Your task to perform on an android device: open app "Truecaller" (install if not already installed) Image 0: 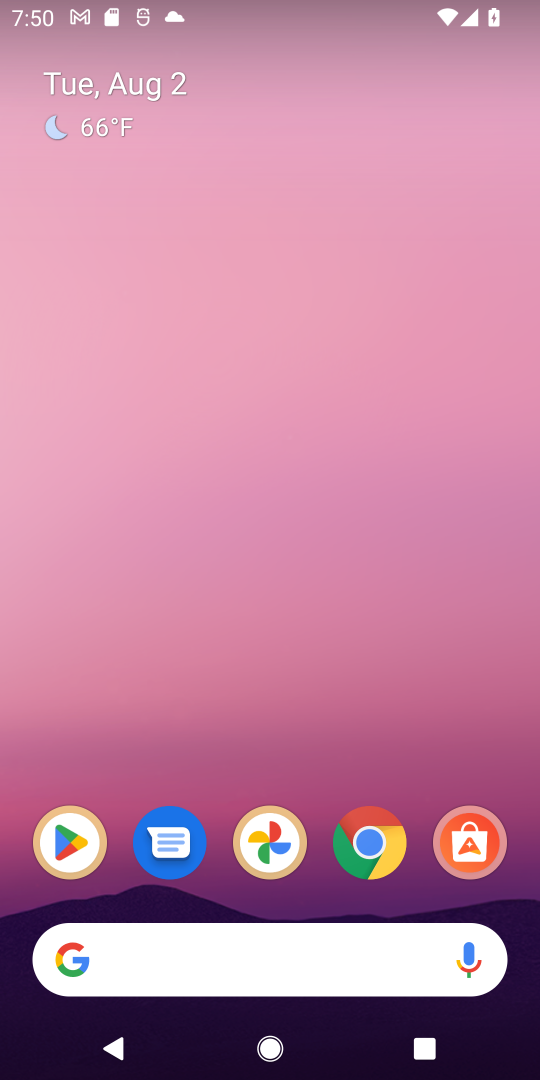
Step 0: click (89, 827)
Your task to perform on an android device: open app "Truecaller" (install if not already installed) Image 1: 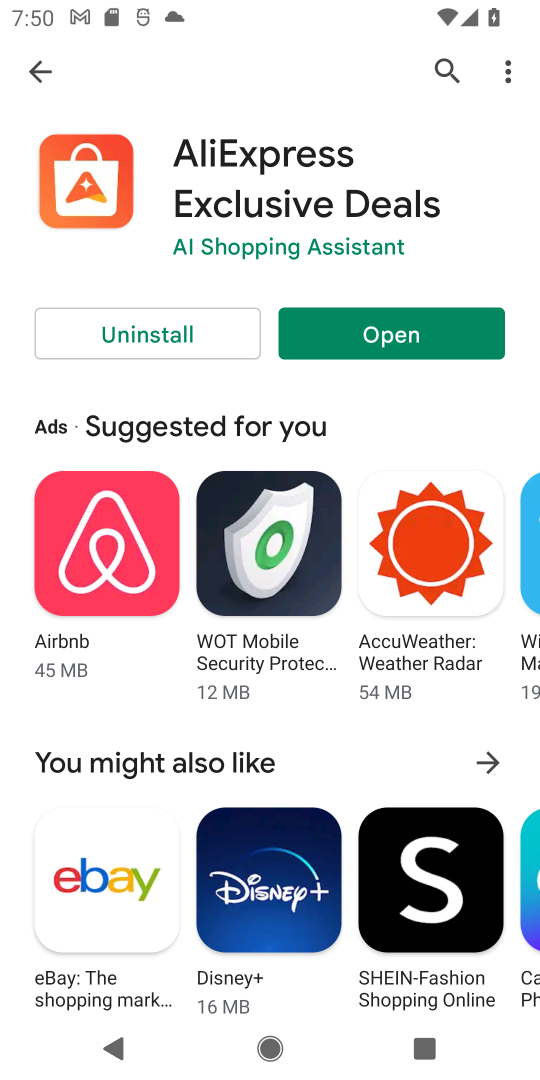
Step 1: click (50, 74)
Your task to perform on an android device: open app "Truecaller" (install if not already installed) Image 2: 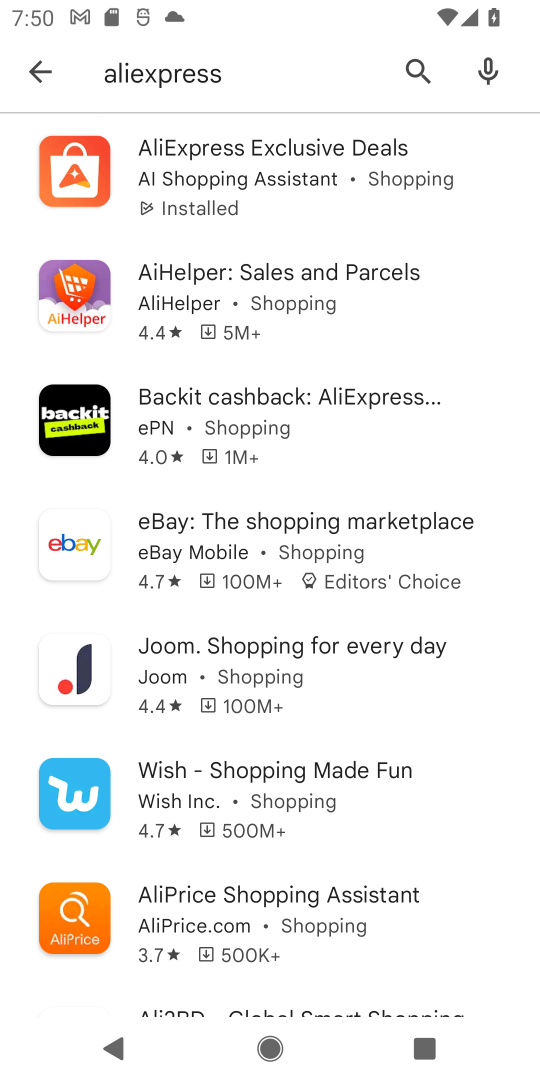
Step 2: click (176, 69)
Your task to perform on an android device: open app "Truecaller" (install if not already installed) Image 3: 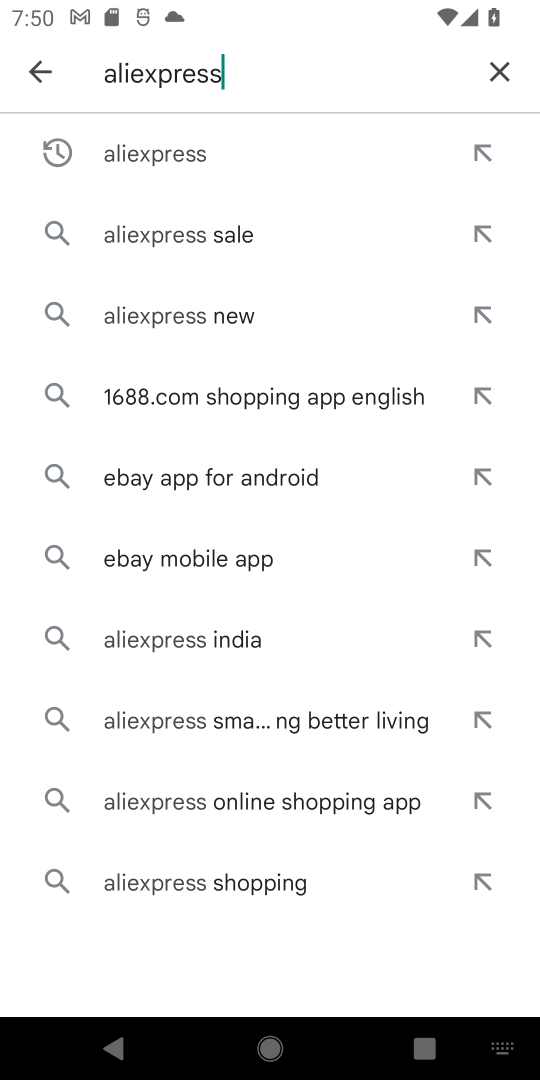
Step 3: click (501, 72)
Your task to perform on an android device: open app "Truecaller" (install if not already installed) Image 4: 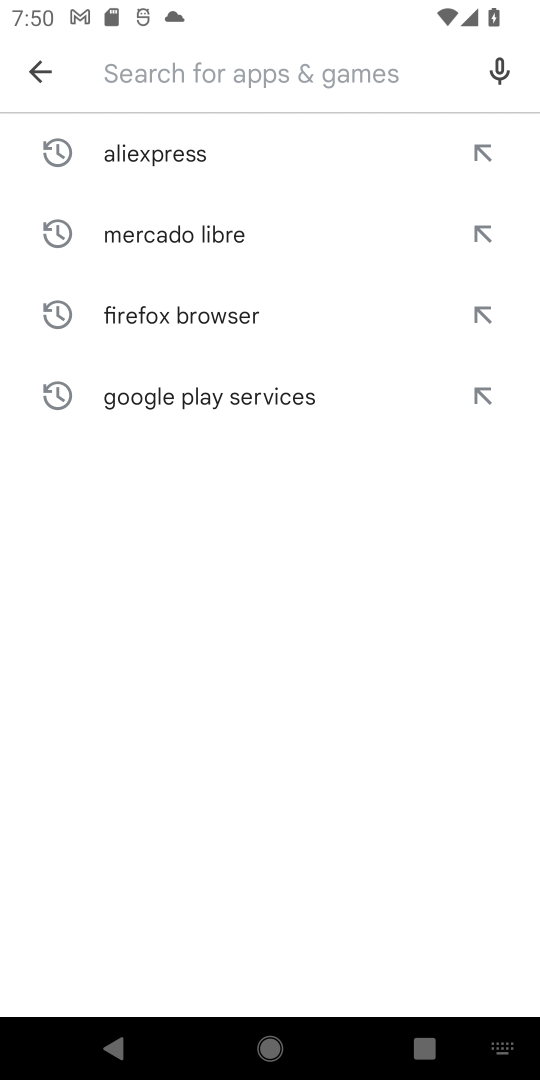
Step 4: type "truecaller"
Your task to perform on an android device: open app "Truecaller" (install if not already installed) Image 5: 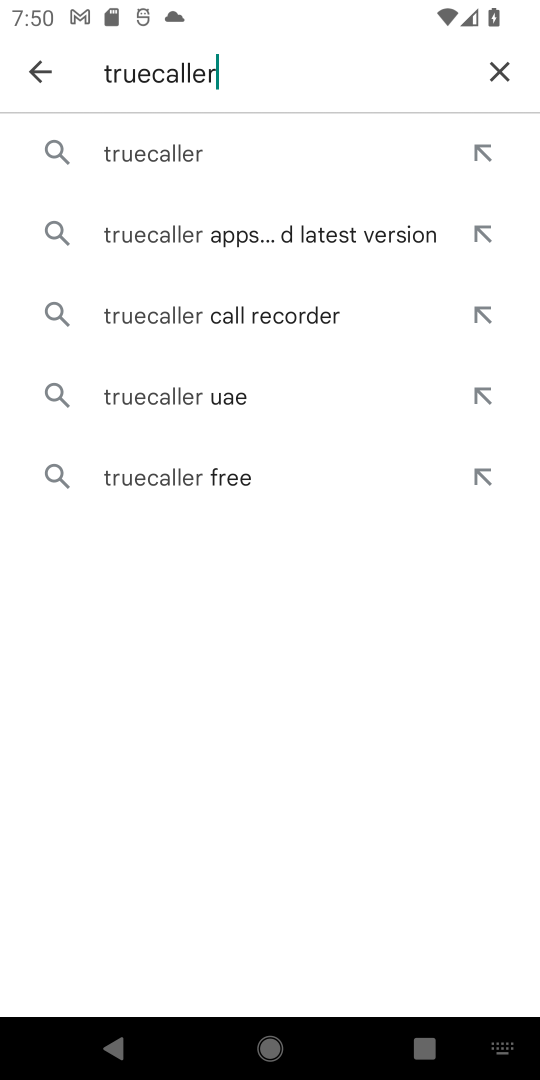
Step 5: click (193, 162)
Your task to perform on an android device: open app "Truecaller" (install if not already installed) Image 6: 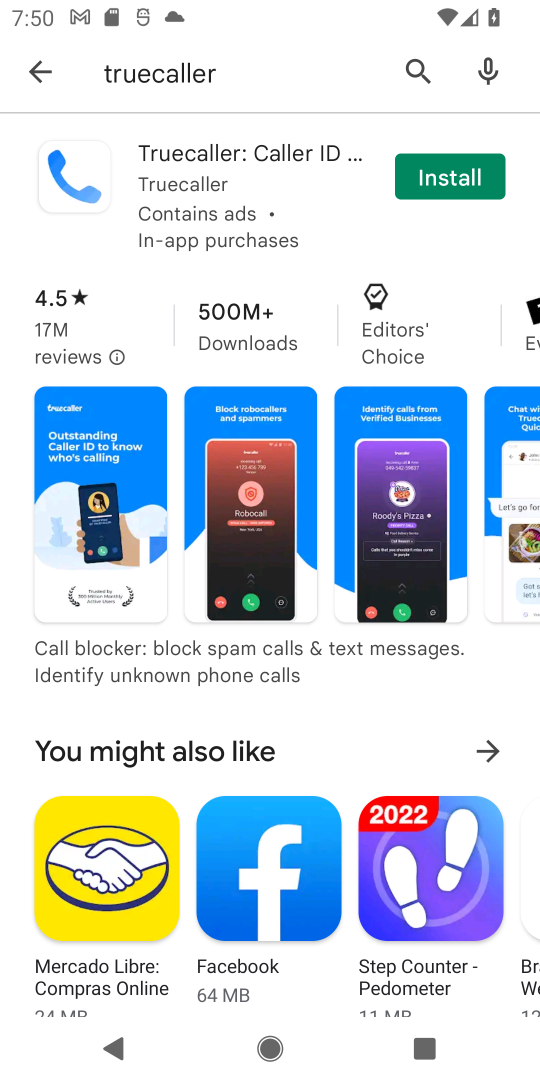
Step 6: click (433, 171)
Your task to perform on an android device: open app "Truecaller" (install if not already installed) Image 7: 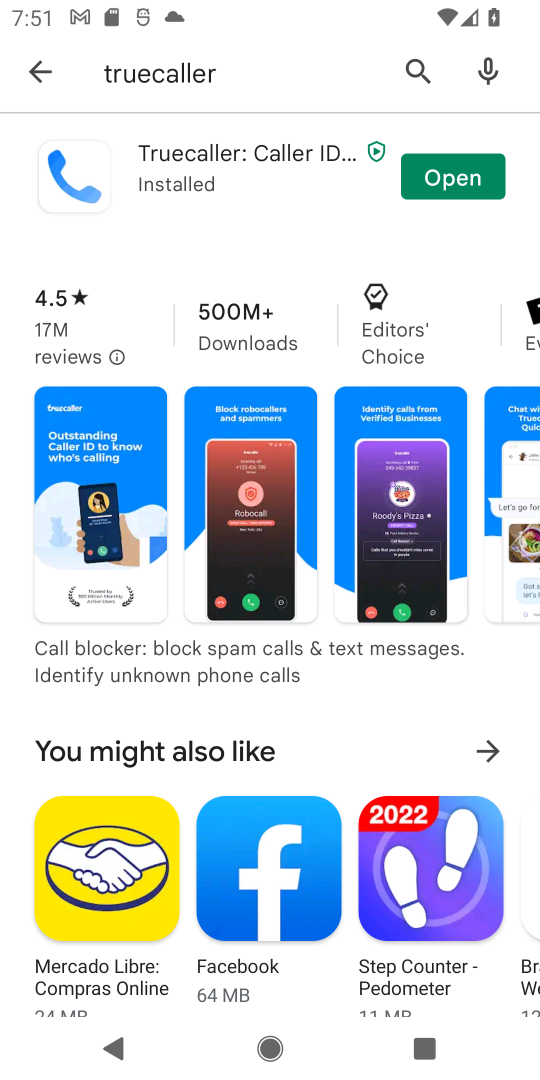
Step 7: click (454, 177)
Your task to perform on an android device: open app "Truecaller" (install if not already installed) Image 8: 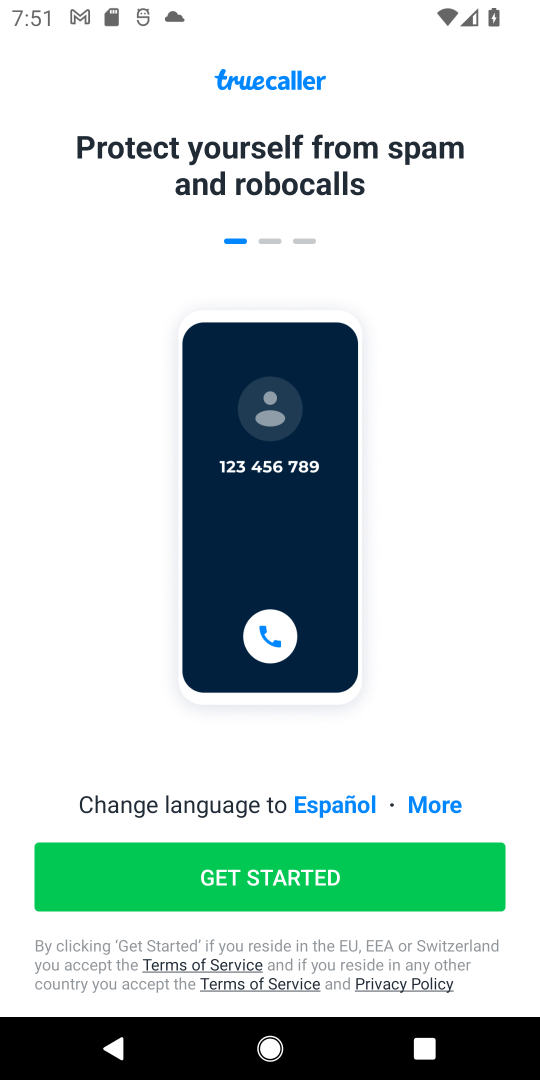
Step 8: click (323, 867)
Your task to perform on an android device: open app "Truecaller" (install if not already installed) Image 9: 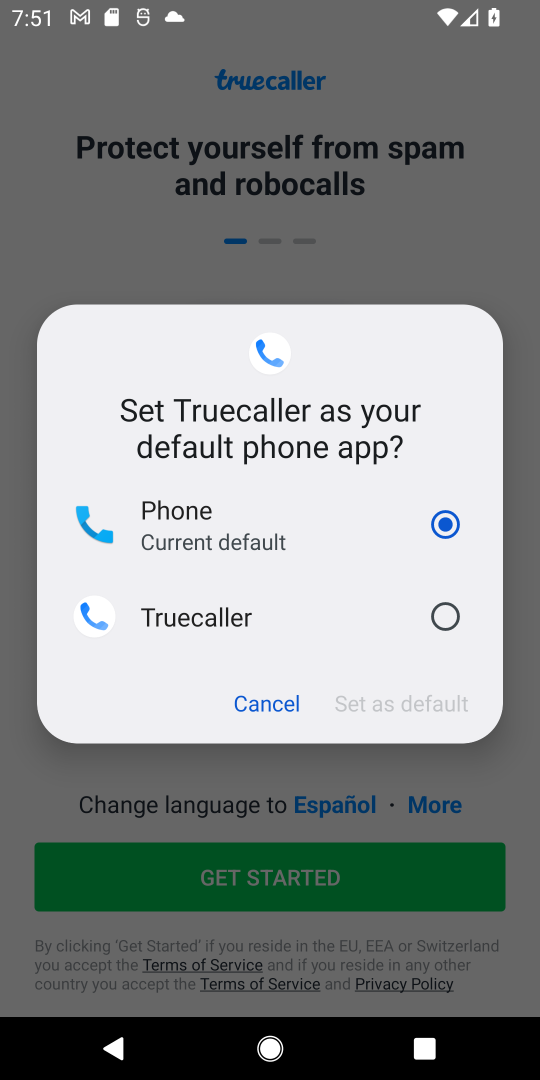
Step 9: click (285, 618)
Your task to perform on an android device: open app "Truecaller" (install if not already installed) Image 10: 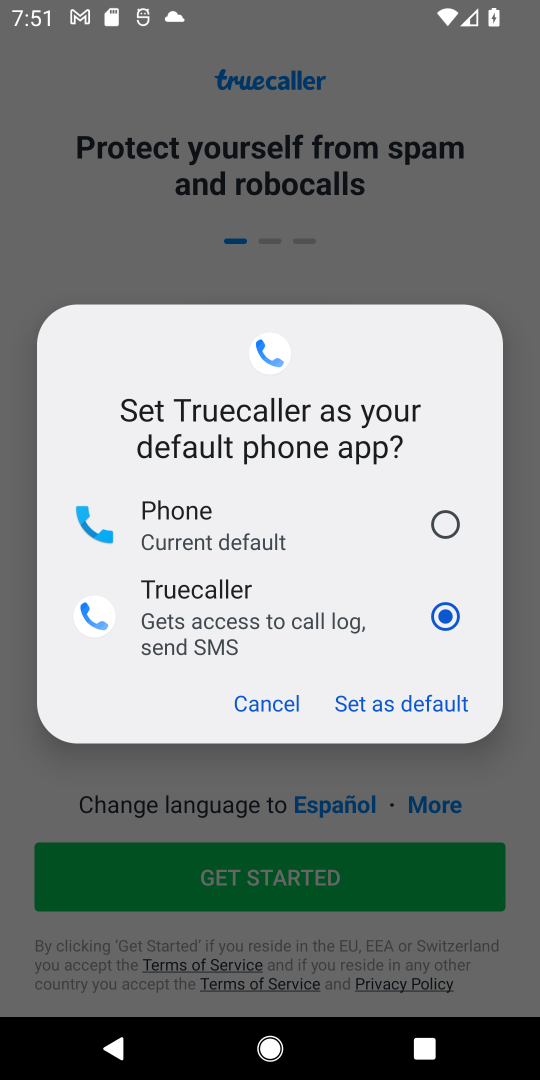
Step 10: click (416, 698)
Your task to perform on an android device: open app "Truecaller" (install if not already installed) Image 11: 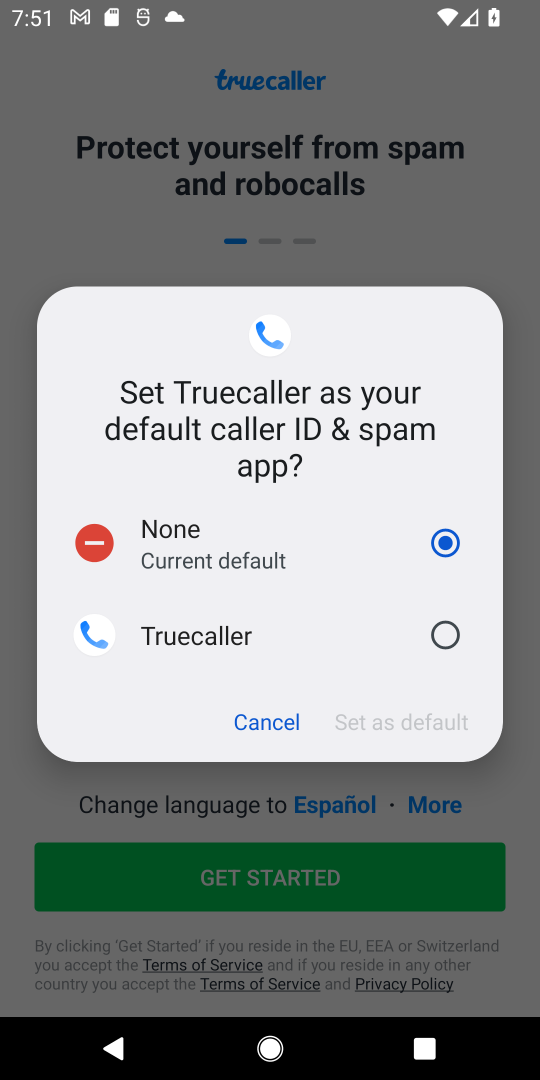
Step 11: click (399, 631)
Your task to perform on an android device: open app "Truecaller" (install if not already installed) Image 12: 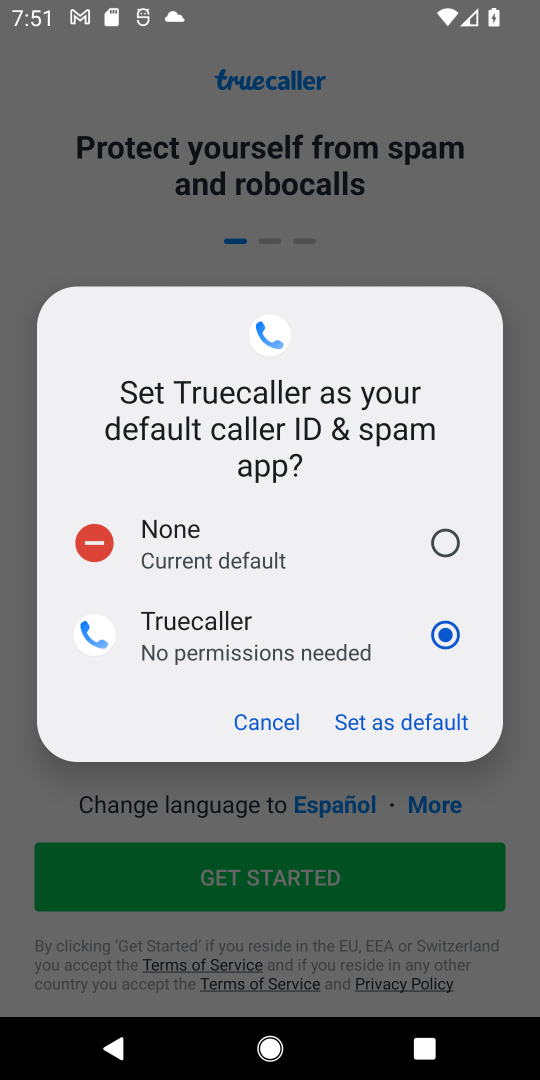
Step 12: click (392, 716)
Your task to perform on an android device: open app "Truecaller" (install if not already installed) Image 13: 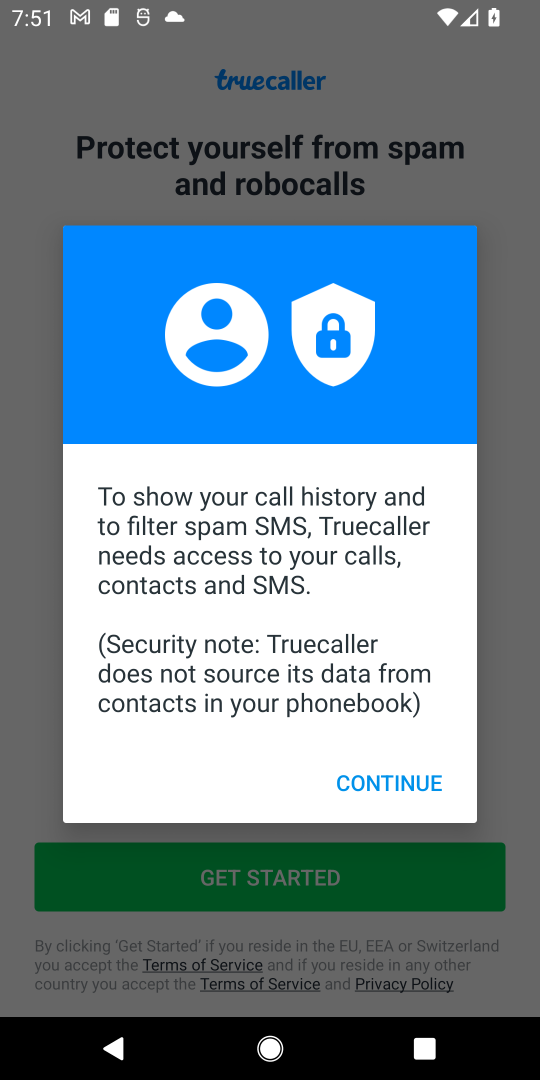
Step 13: click (375, 787)
Your task to perform on an android device: open app "Truecaller" (install if not already installed) Image 14: 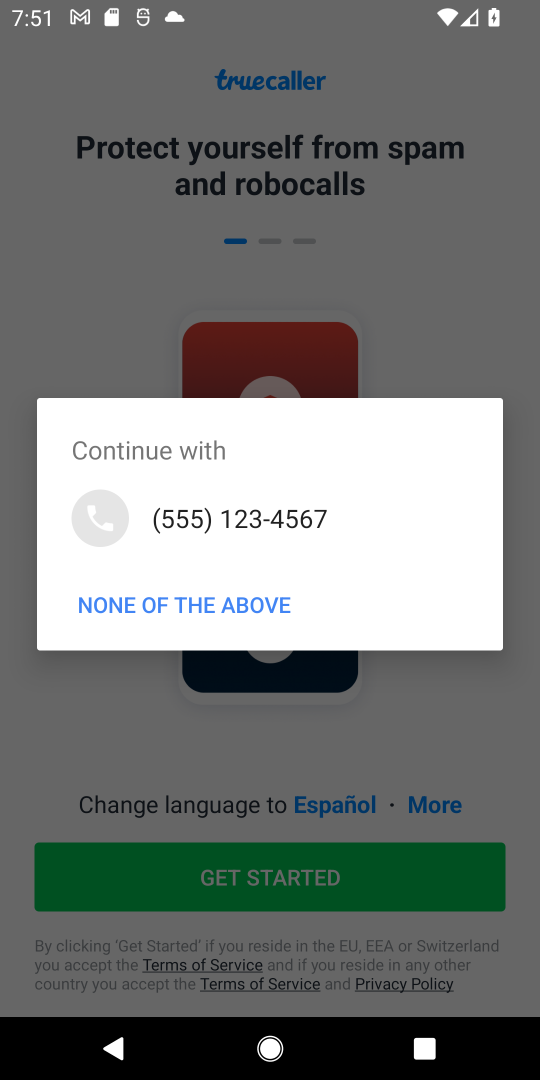
Step 14: task complete